Your task to perform on an android device: choose inbox layout in the gmail app Image 0: 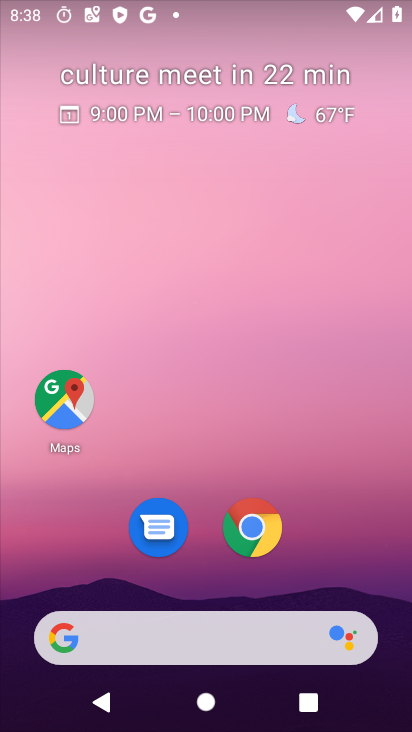
Step 0: drag from (255, 717) to (255, 175)
Your task to perform on an android device: choose inbox layout in the gmail app Image 1: 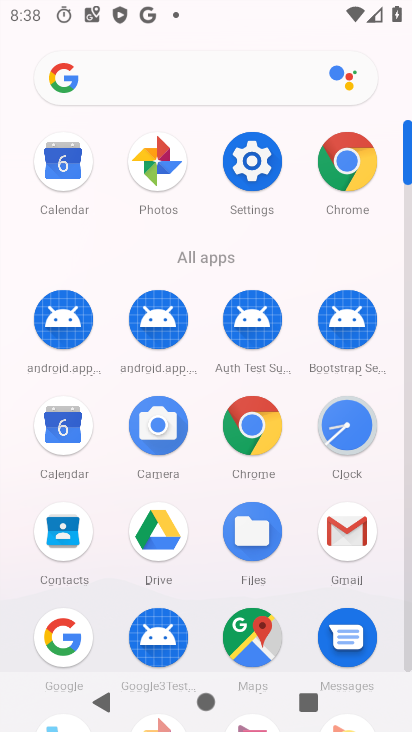
Step 1: click (344, 521)
Your task to perform on an android device: choose inbox layout in the gmail app Image 2: 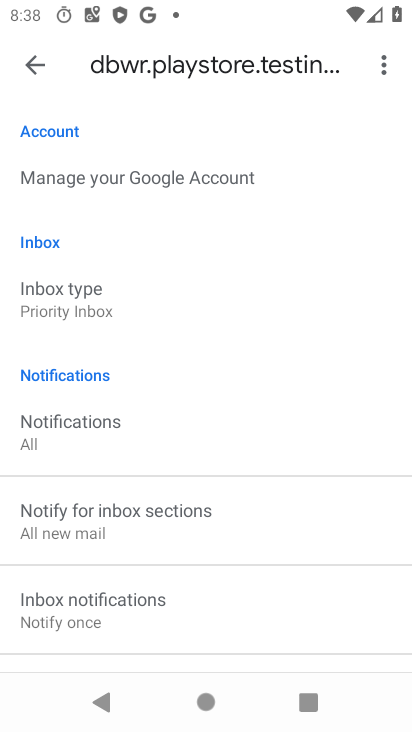
Step 2: click (74, 300)
Your task to perform on an android device: choose inbox layout in the gmail app Image 3: 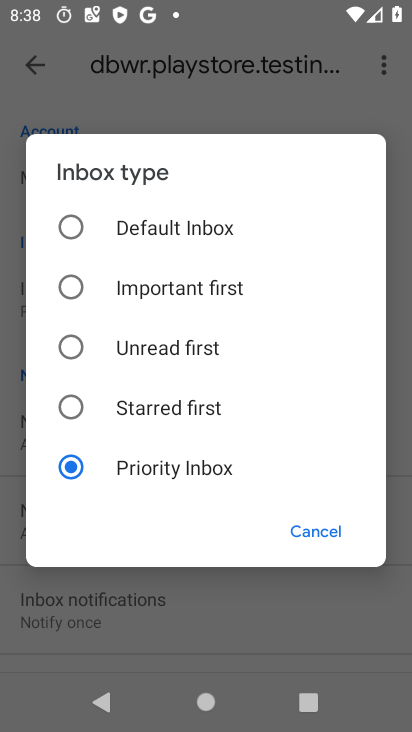
Step 3: click (67, 226)
Your task to perform on an android device: choose inbox layout in the gmail app Image 4: 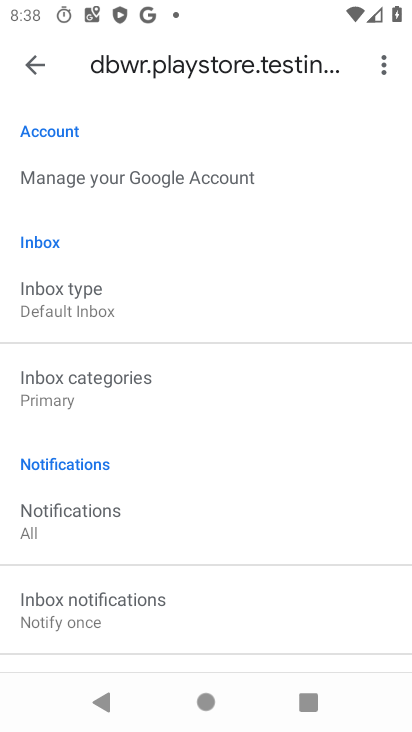
Step 4: task complete